Your task to perform on an android device: Go to internet settings Image 0: 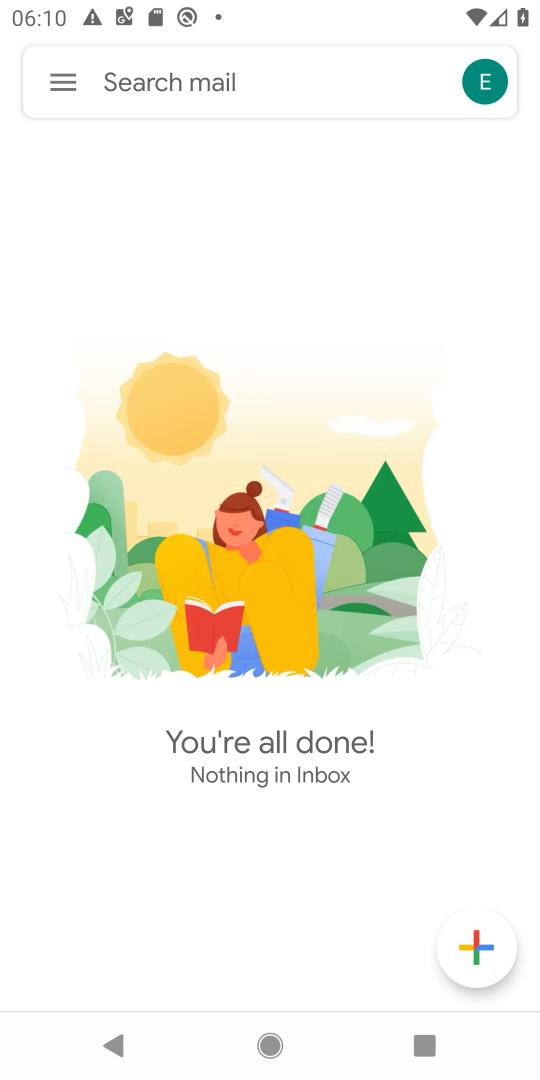
Step 0: press home button
Your task to perform on an android device: Go to internet settings Image 1: 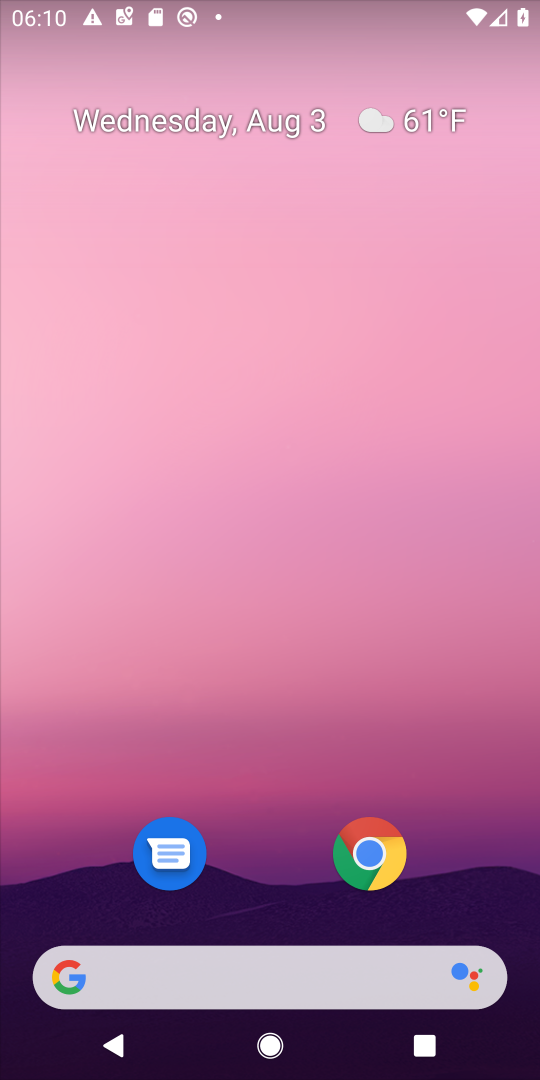
Step 1: drag from (259, 927) to (245, 220)
Your task to perform on an android device: Go to internet settings Image 2: 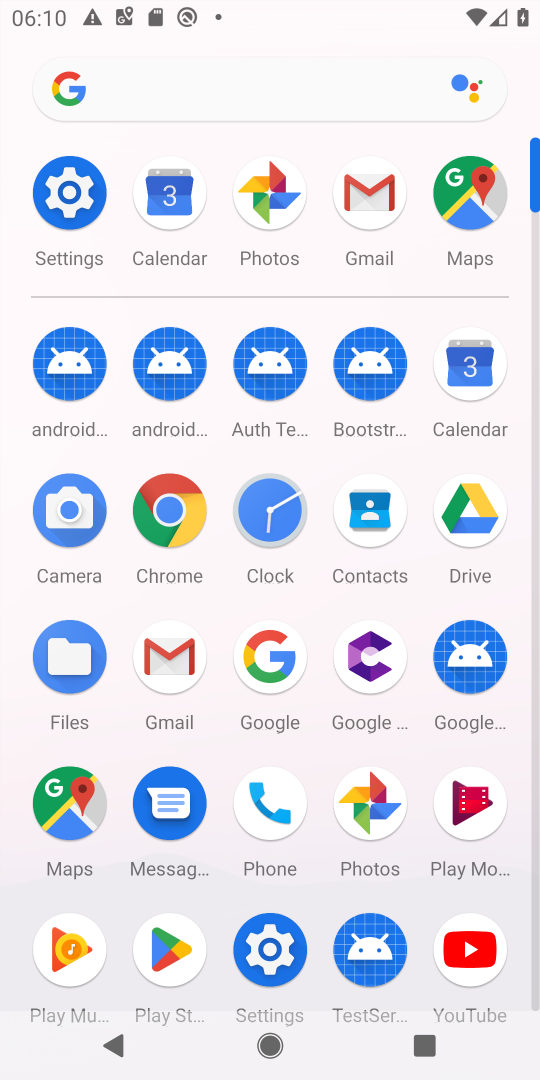
Step 2: click (57, 198)
Your task to perform on an android device: Go to internet settings Image 3: 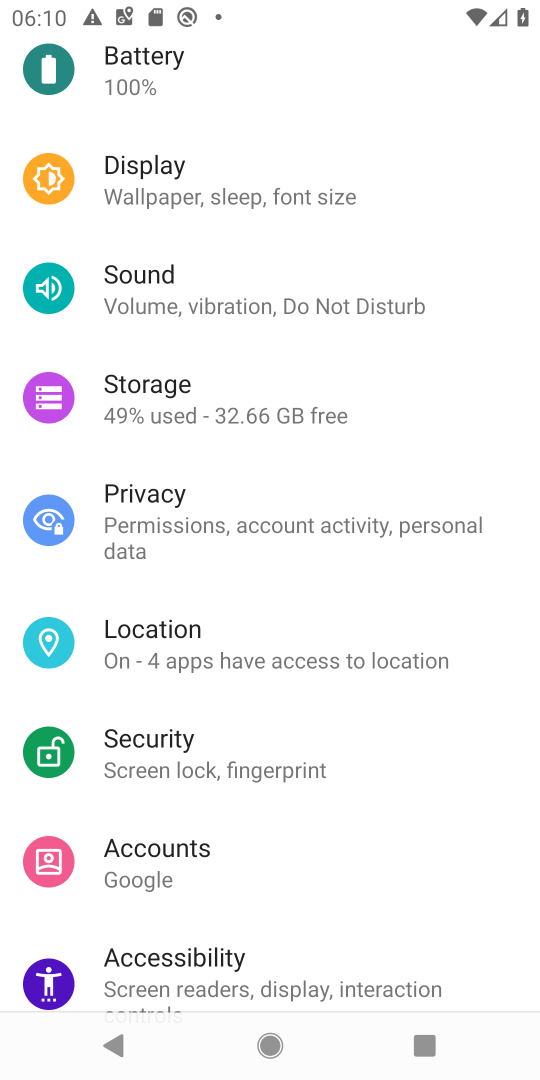
Step 3: drag from (251, 128) to (250, 870)
Your task to perform on an android device: Go to internet settings Image 4: 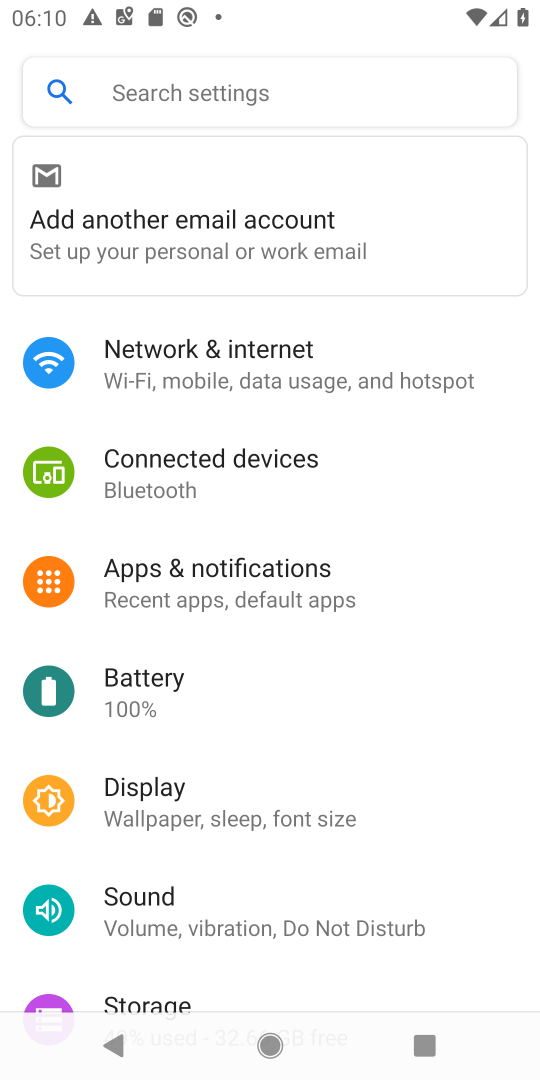
Step 4: click (184, 355)
Your task to perform on an android device: Go to internet settings Image 5: 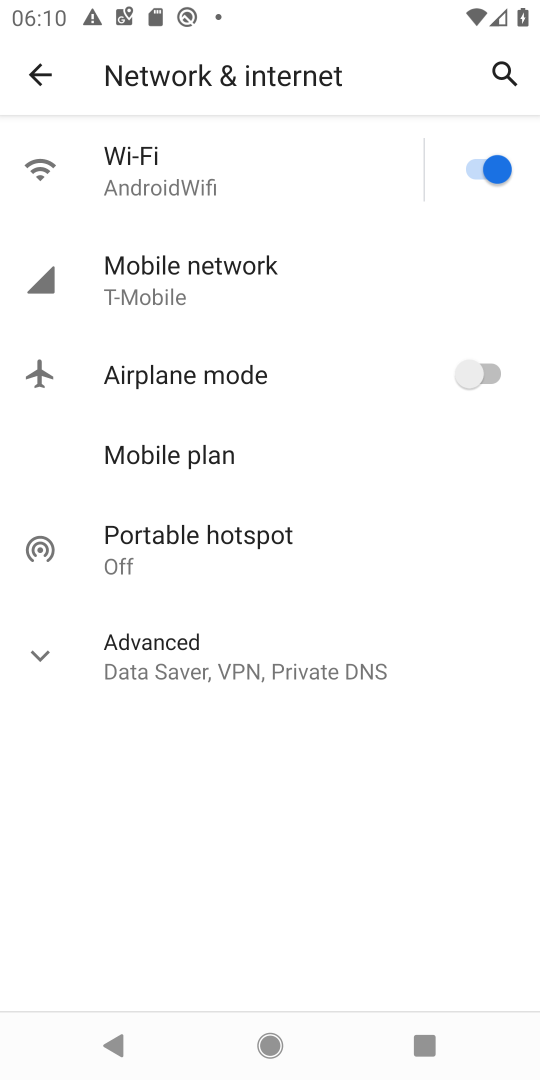
Step 5: task complete